Your task to perform on an android device: Go to internet settings Image 0: 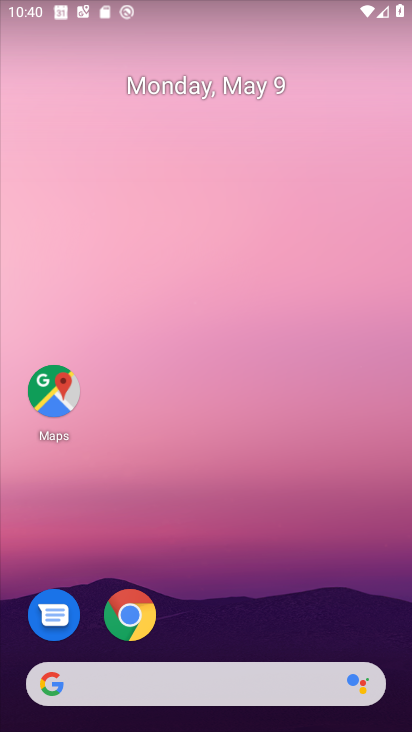
Step 0: drag from (276, 709) to (278, 202)
Your task to perform on an android device: Go to internet settings Image 1: 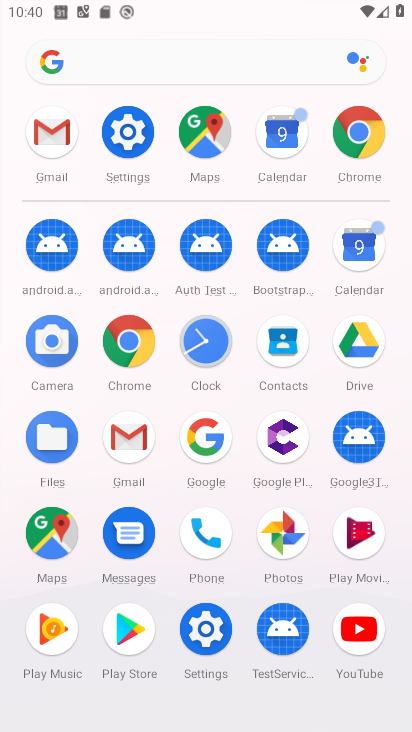
Step 1: click (119, 140)
Your task to perform on an android device: Go to internet settings Image 2: 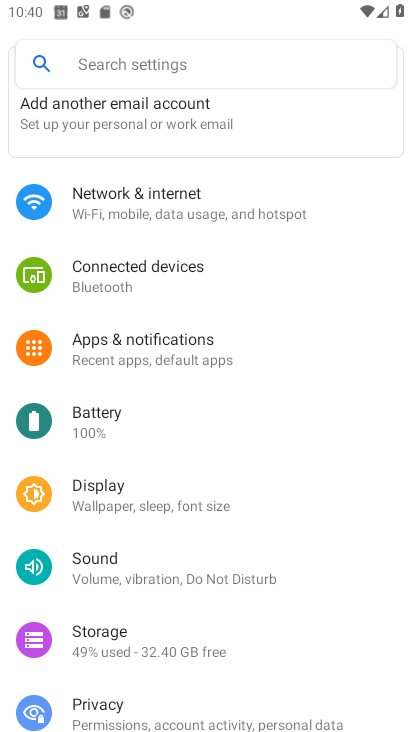
Step 2: click (138, 193)
Your task to perform on an android device: Go to internet settings Image 3: 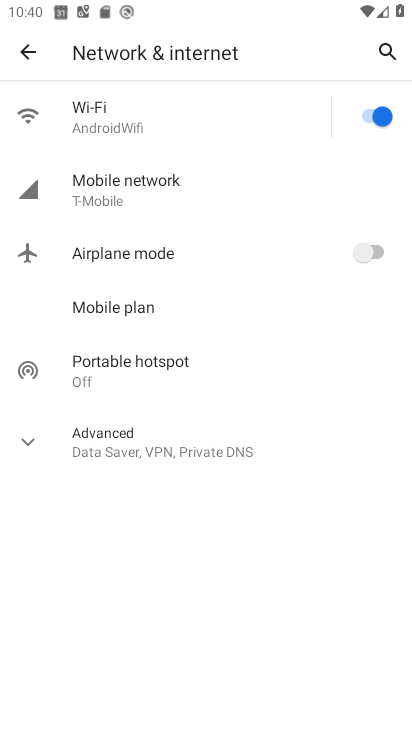
Step 3: task complete